Your task to perform on an android device: uninstall "DoorDash - Dasher" Image 0: 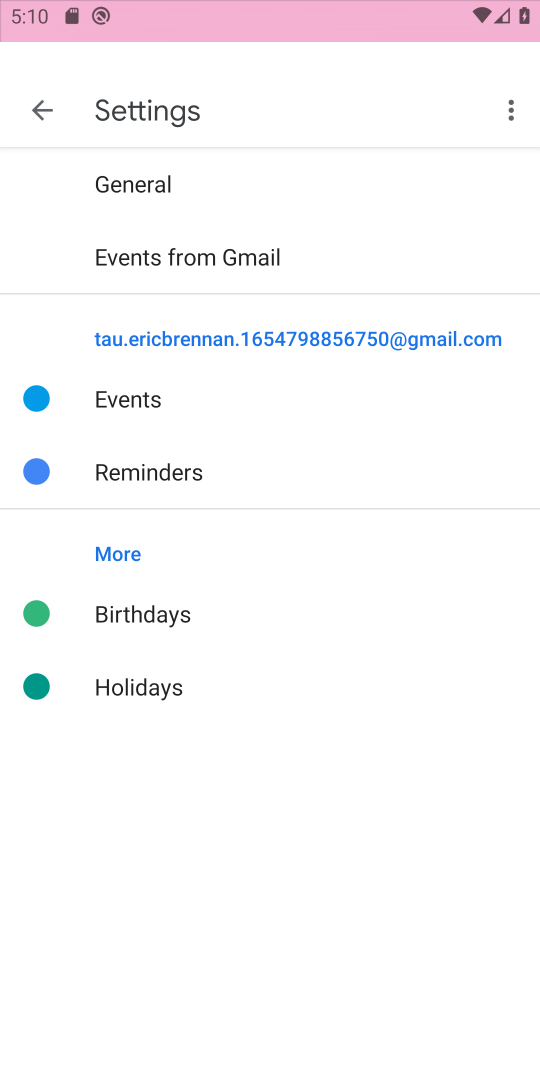
Step 0: press back button
Your task to perform on an android device: uninstall "DoorDash - Dasher" Image 1: 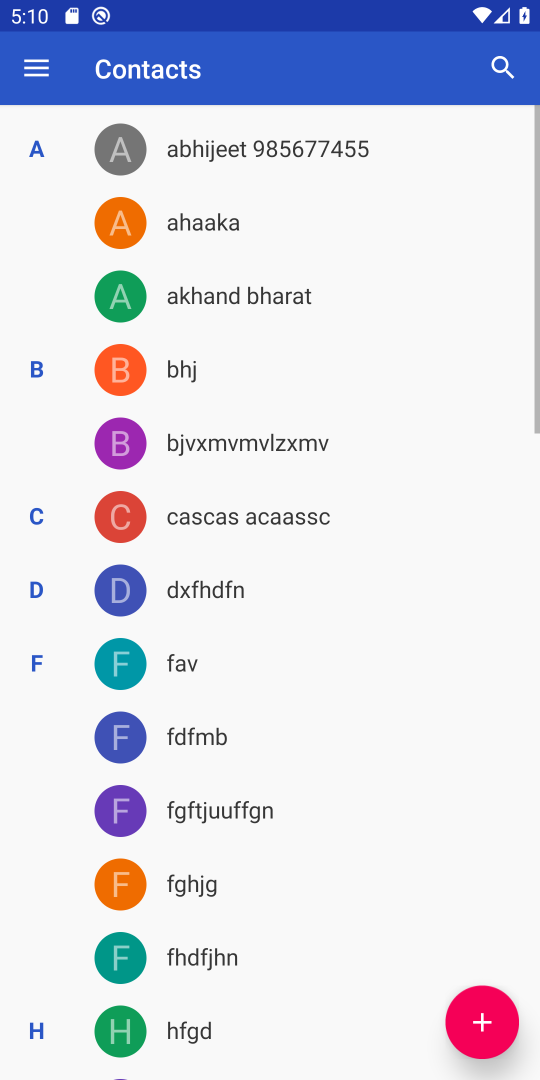
Step 1: press back button
Your task to perform on an android device: uninstall "DoorDash - Dasher" Image 2: 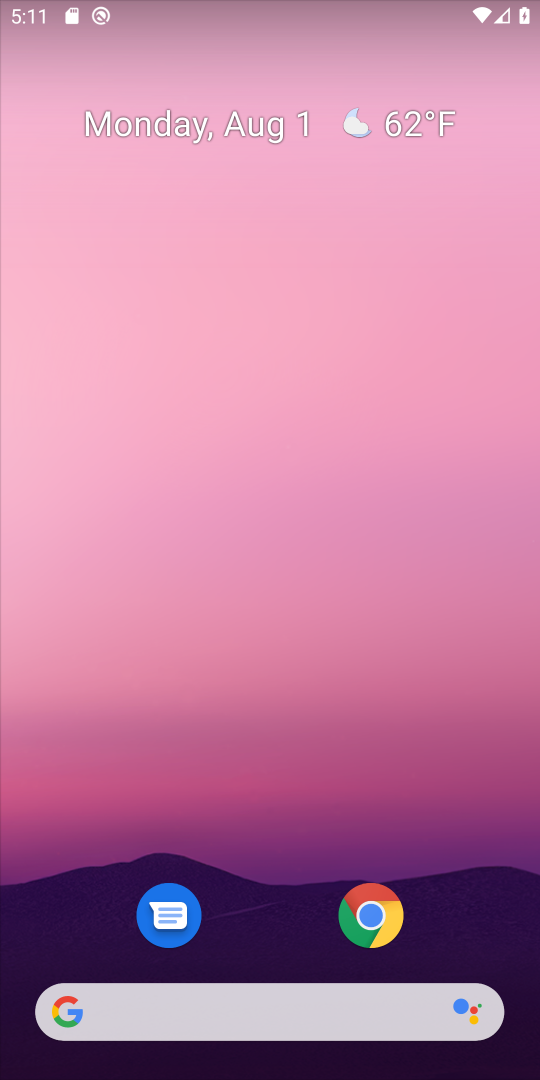
Step 2: press back button
Your task to perform on an android device: uninstall "DoorDash - Dasher" Image 3: 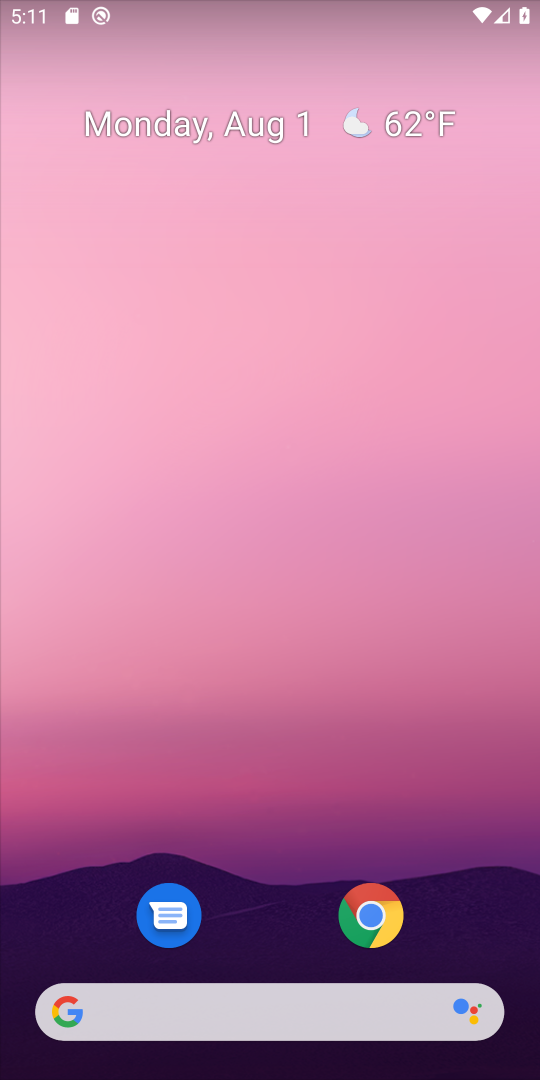
Step 3: drag from (251, 874) to (390, 69)
Your task to perform on an android device: uninstall "DoorDash - Dasher" Image 4: 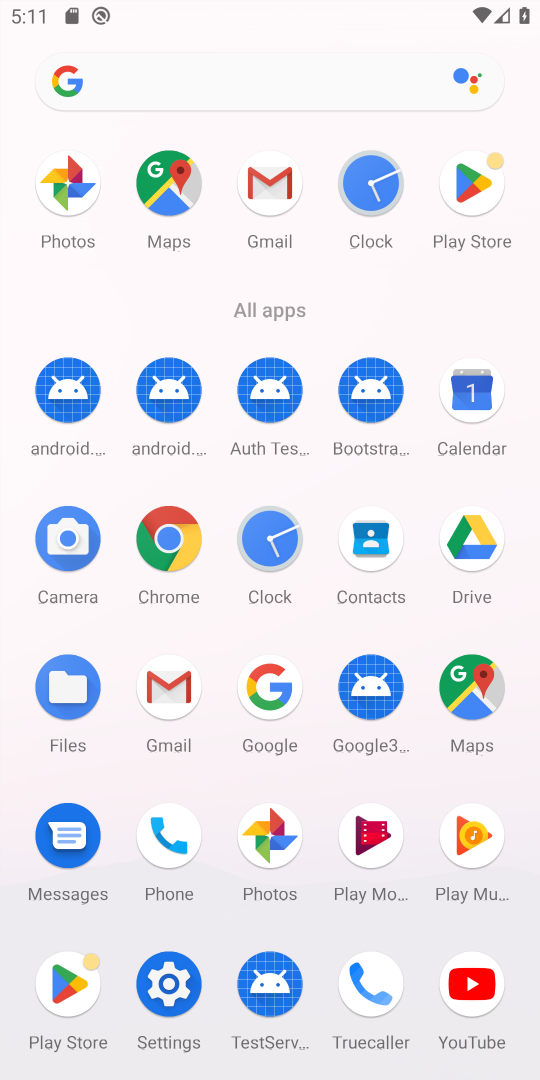
Step 4: click (470, 188)
Your task to perform on an android device: uninstall "DoorDash - Dasher" Image 5: 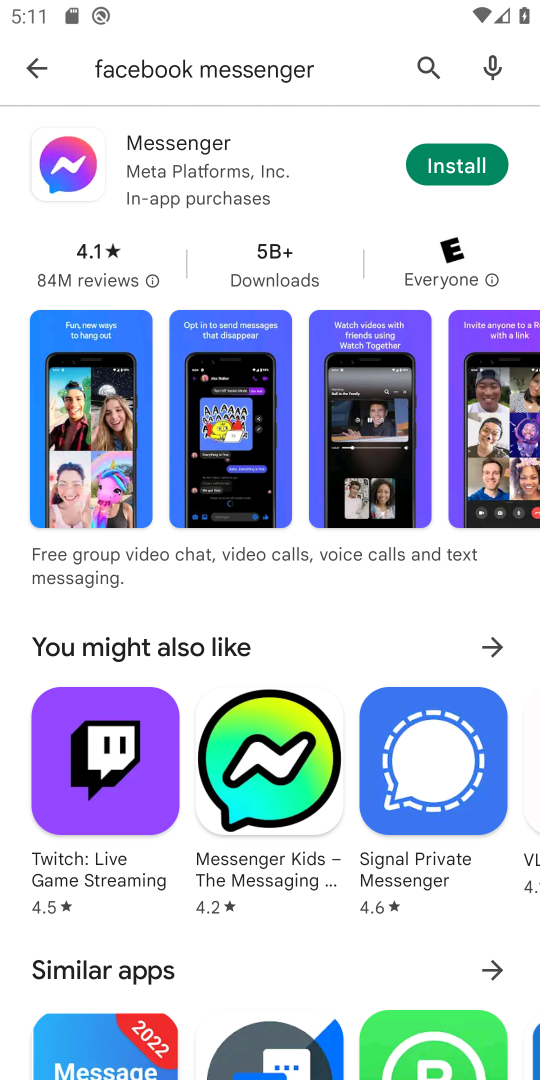
Step 5: click (412, 59)
Your task to perform on an android device: uninstall "DoorDash - Dasher" Image 6: 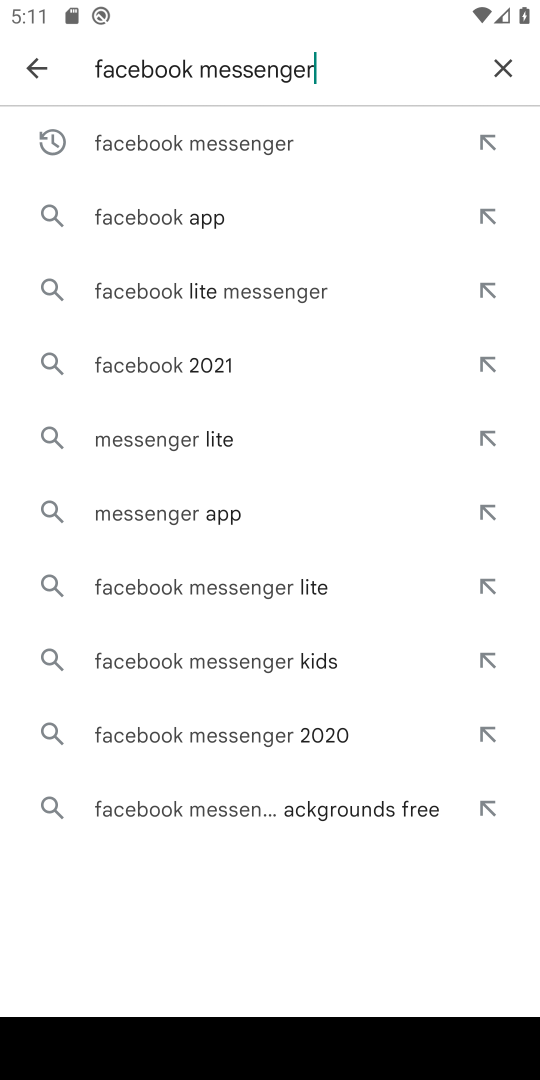
Step 6: click (505, 65)
Your task to perform on an android device: uninstall "DoorDash - Dasher" Image 7: 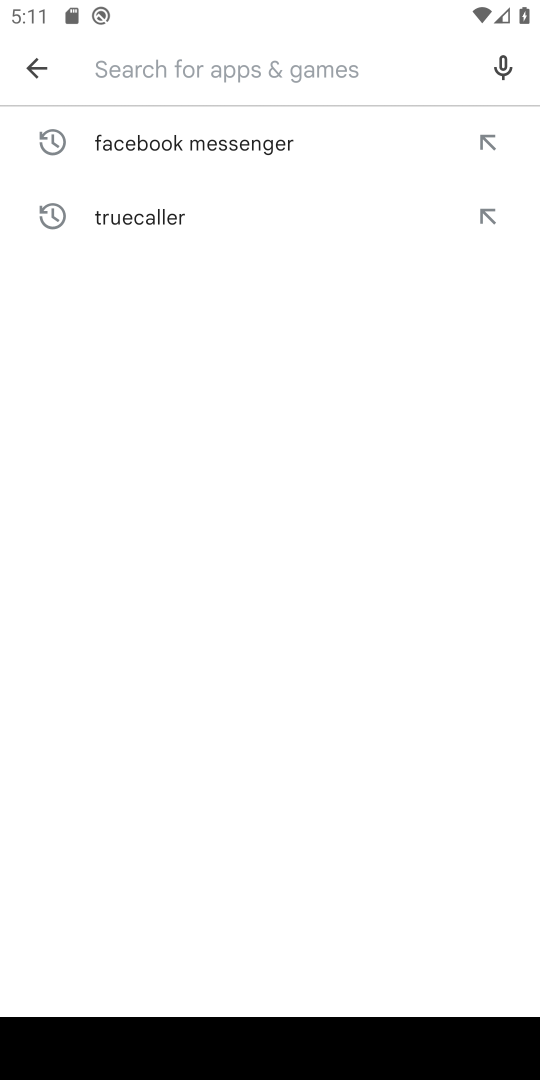
Step 7: click (195, 54)
Your task to perform on an android device: uninstall "DoorDash - Dasher" Image 8: 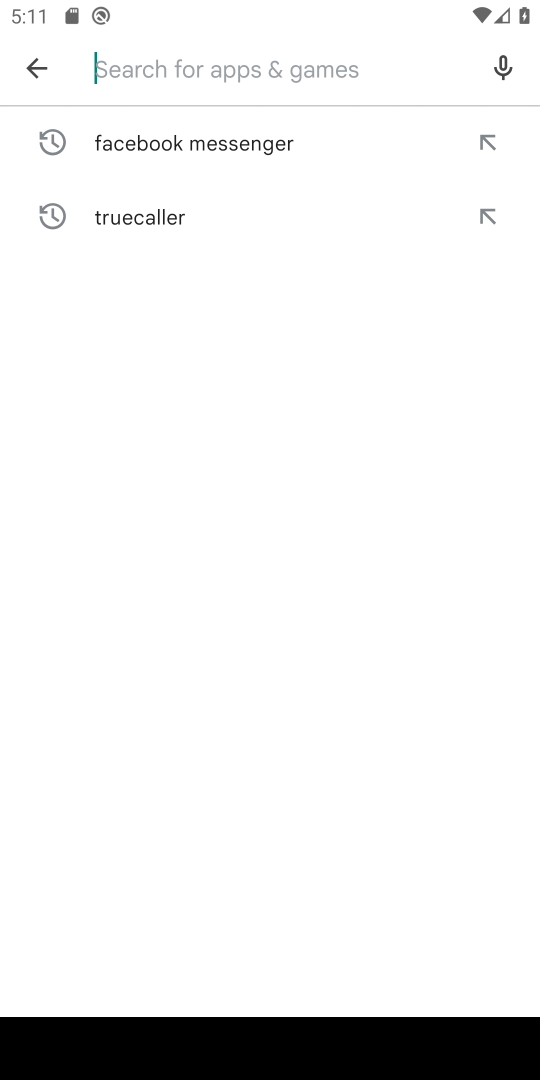
Step 8: type "doordash"
Your task to perform on an android device: uninstall "DoorDash - Dasher" Image 9: 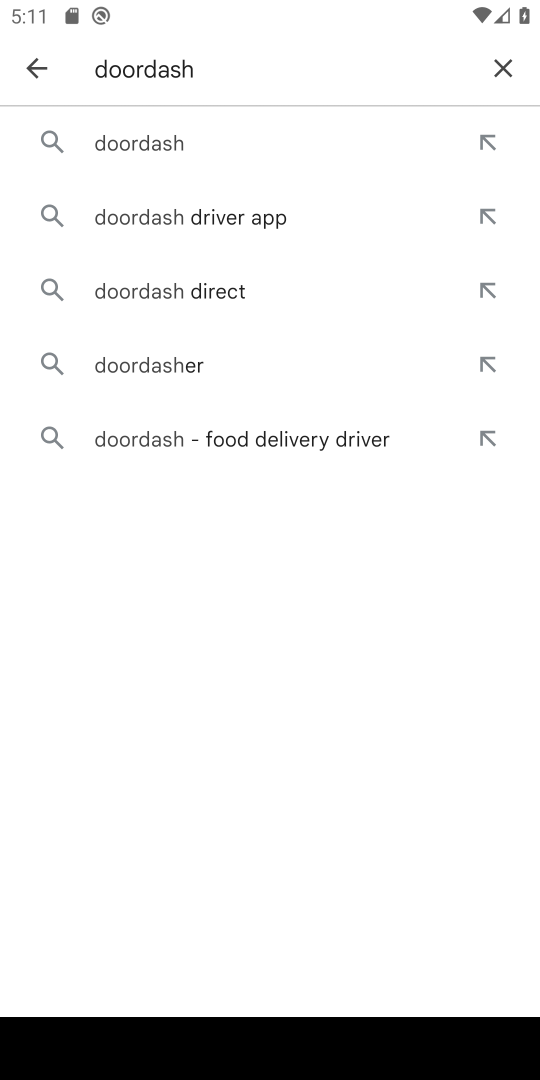
Step 9: click (124, 145)
Your task to perform on an android device: uninstall "DoorDash - Dasher" Image 10: 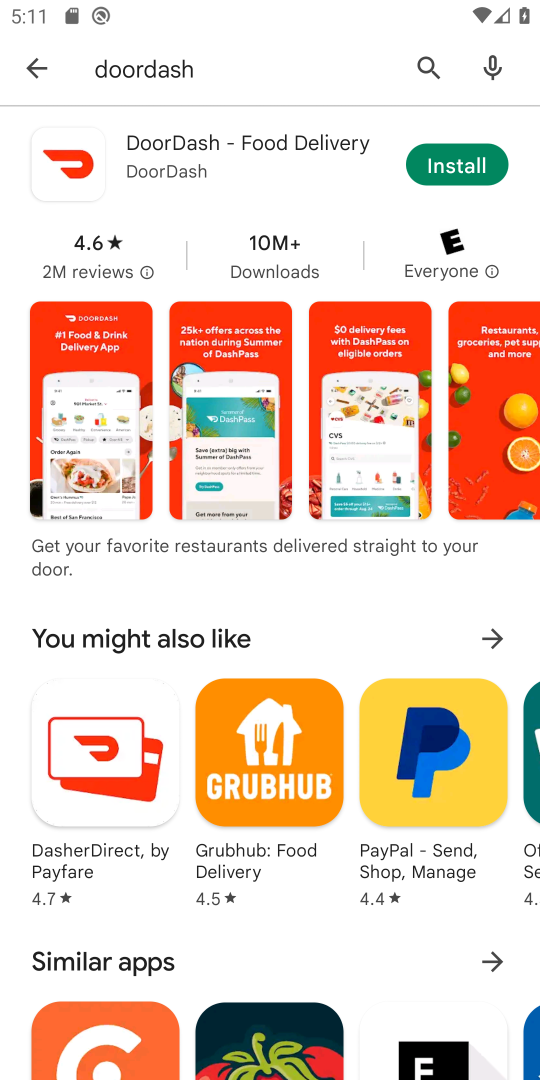
Step 10: click (170, 161)
Your task to perform on an android device: uninstall "DoorDash - Dasher" Image 11: 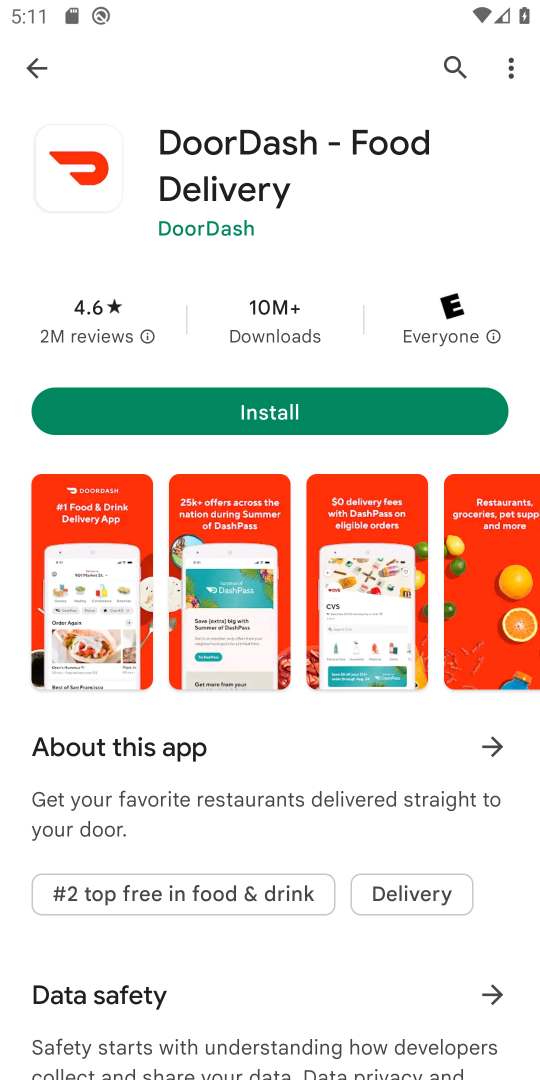
Step 11: task complete